Your task to perform on an android device: What's on my calendar tomorrow? Image 0: 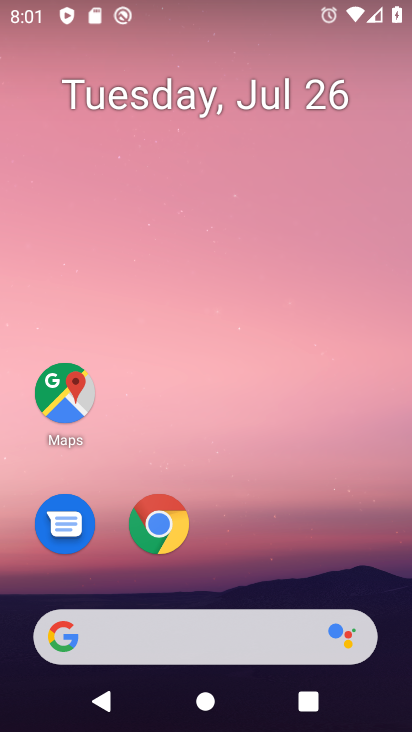
Step 0: drag from (265, 561) to (285, 49)
Your task to perform on an android device: What's on my calendar tomorrow? Image 1: 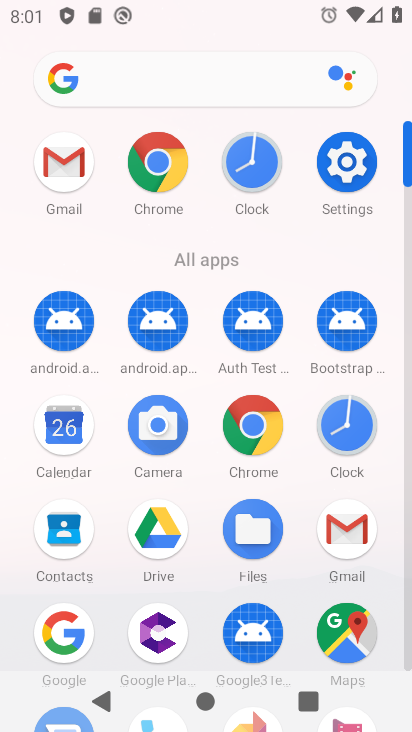
Step 1: click (69, 430)
Your task to perform on an android device: What's on my calendar tomorrow? Image 2: 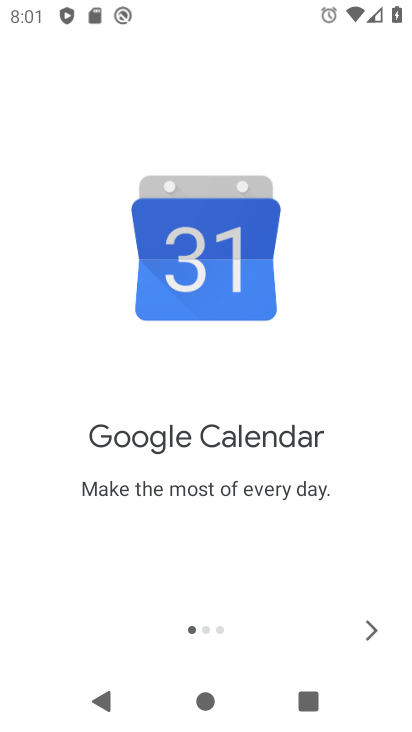
Step 2: click (367, 624)
Your task to perform on an android device: What's on my calendar tomorrow? Image 3: 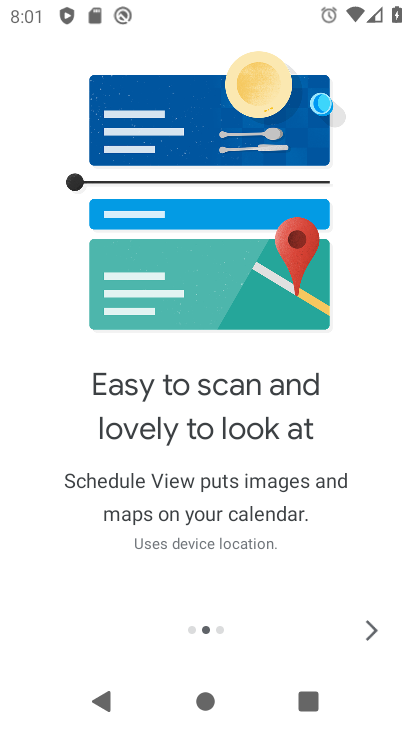
Step 3: click (367, 624)
Your task to perform on an android device: What's on my calendar tomorrow? Image 4: 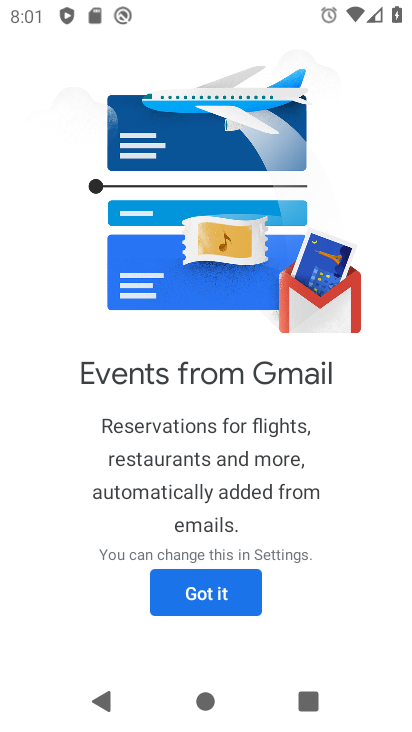
Step 4: click (243, 588)
Your task to perform on an android device: What's on my calendar tomorrow? Image 5: 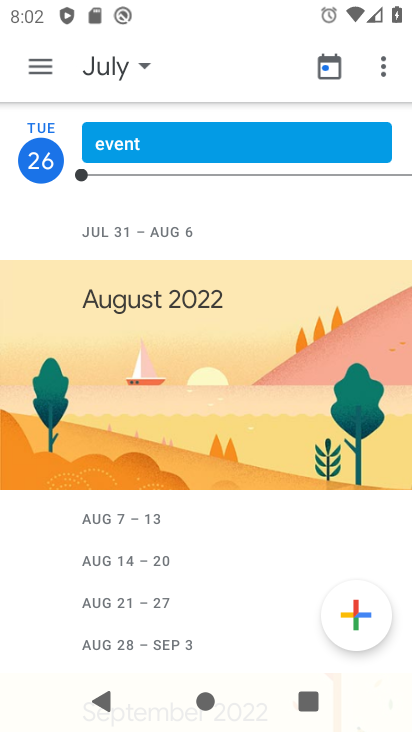
Step 5: click (45, 160)
Your task to perform on an android device: What's on my calendar tomorrow? Image 6: 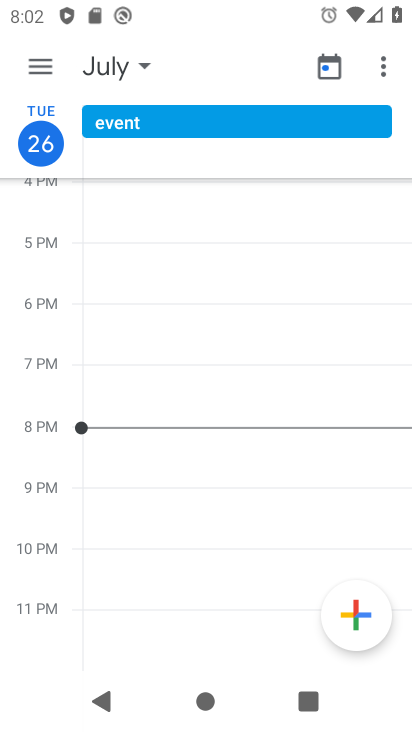
Step 6: click (47, 65)
Your task to perform on an android device: What's on my calendar tomorrow? Image 7: 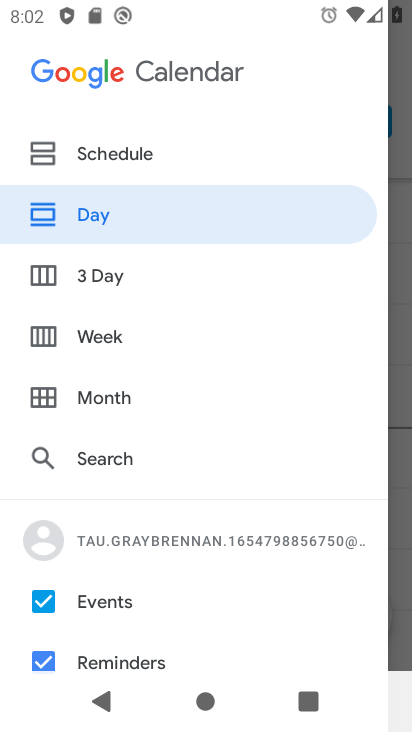
Step 7: click (48, 324)
Your task to perform on an android device: What's on my calendar tomorrow? Image 8: 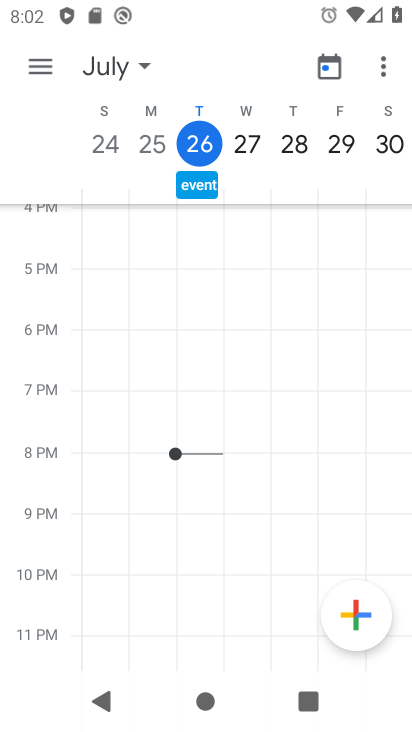
Step 8: task complete